Your task to perform on an android device: Is it going to rain today? Image 0: 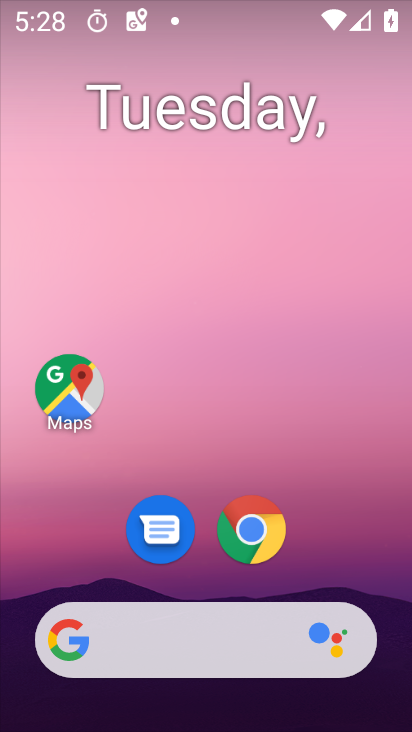
Step 0: drag from (33, 246) to (386, 326)
Your task to perform on an android device: Is it going to rain today? Image 1: 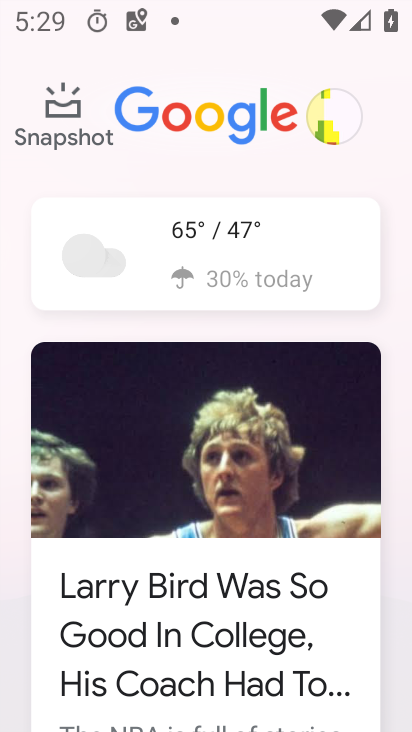
Step 1: click (259, 255)
Your task to perform on an android device: Is it going to rain today? Image 2: 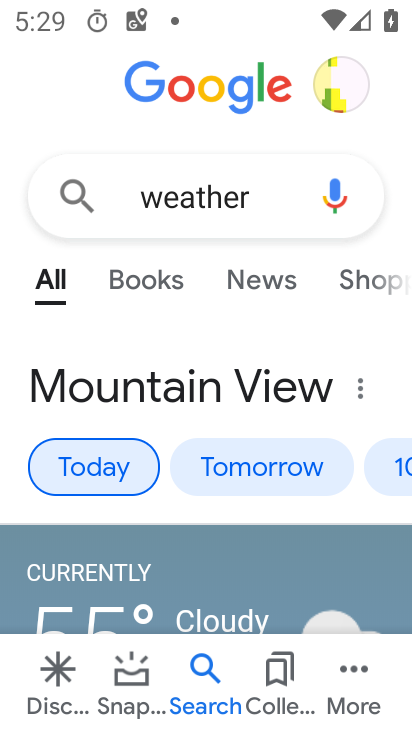
Step 2: task complete